Your task to perform on an android device: open a new tab in the chrome app Image 0: 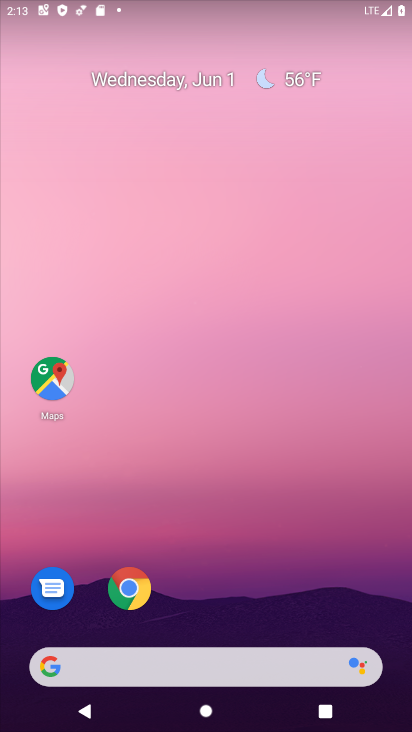
Step 0: click (122, 606)
Your task to perform on an android device: open a new tab in the chrome app Image 1: 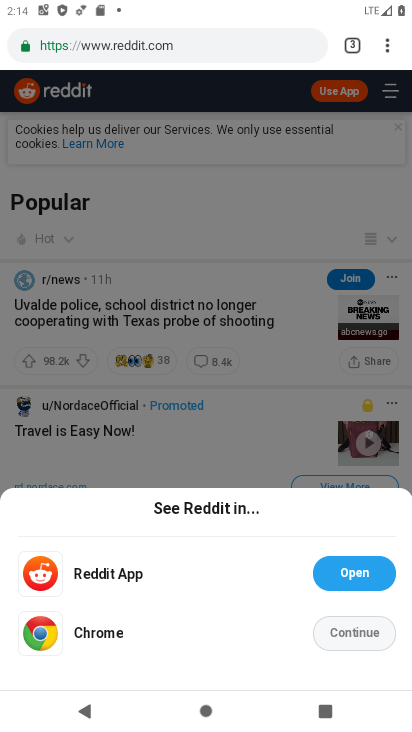
Step 1: click (355, 37)
Your task to perform on an android device: open a new tab in the chrome app Image 2: 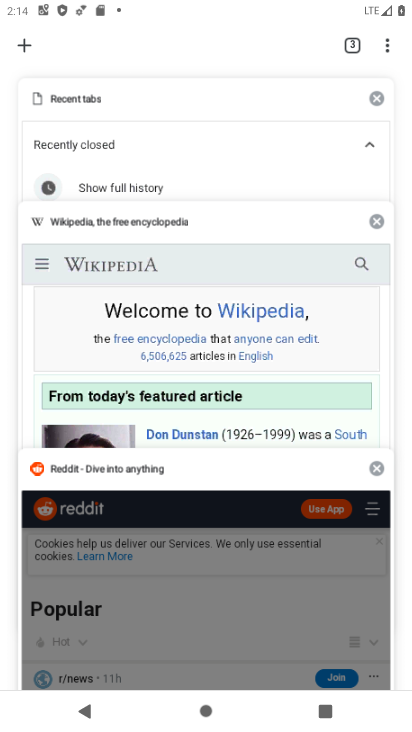
Step 2: click (25, 49)
Your task to perform on an android device: open a new tab in the chrome app Image 3: 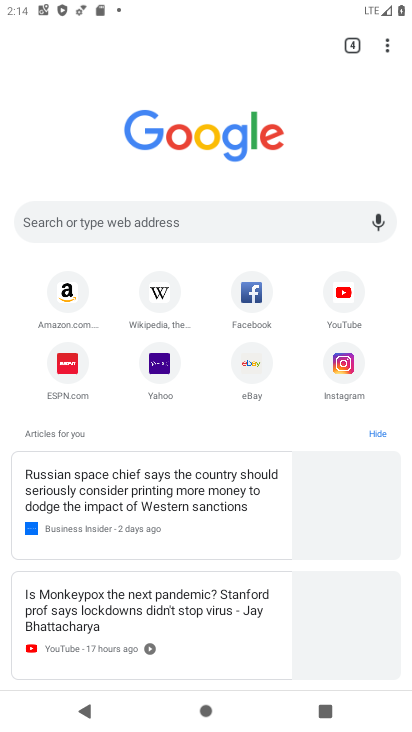
Step 3: task complete